Your task to perform on an android device: allow notifications from all sites in the chrome app Image 0: 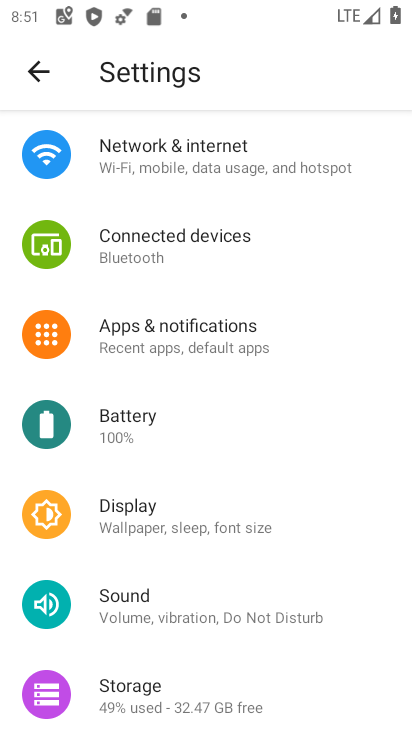
Step 0: press home button
Your task to perform on an android device: allow notifications from all sites in the chrome app Image 1: 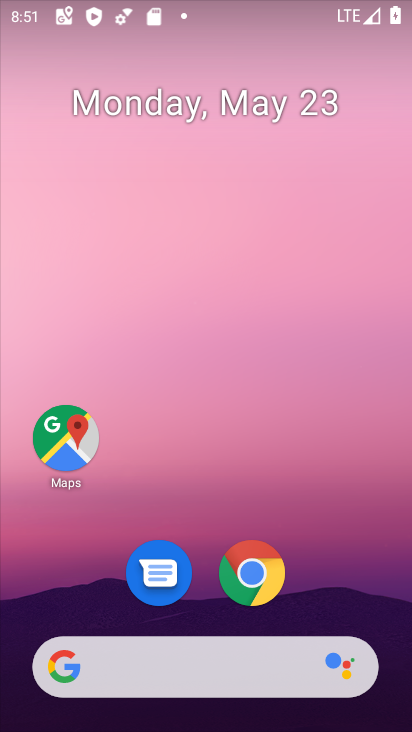
Step 1: click (252, 566)
Your task to perform on an android device: allow notifications from all sites in the chrome app Image 2: 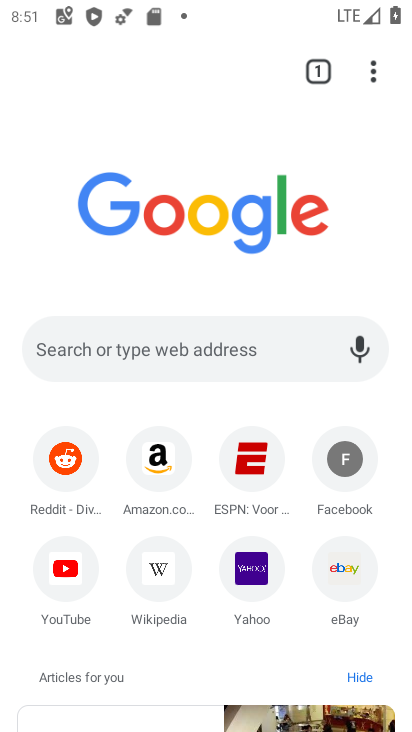
Step 2: click (369, 69)
Your task to perform on an android device: allow notifications from all sites in the chrome app Image 3: 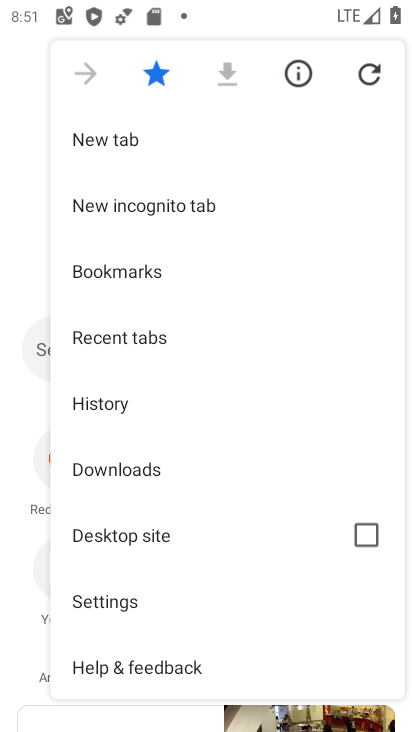
Step 3: click (139, 598)
Your task to perform on an android device: allow notifications from all sites in the chrome app Image 4: 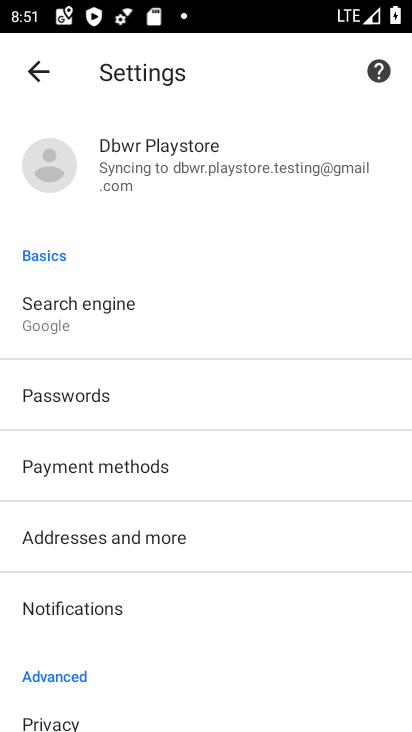
Step 4: click (139, 598)
Your task to perform on an android device: allow notifications from all sites in the chrome app Image 5: 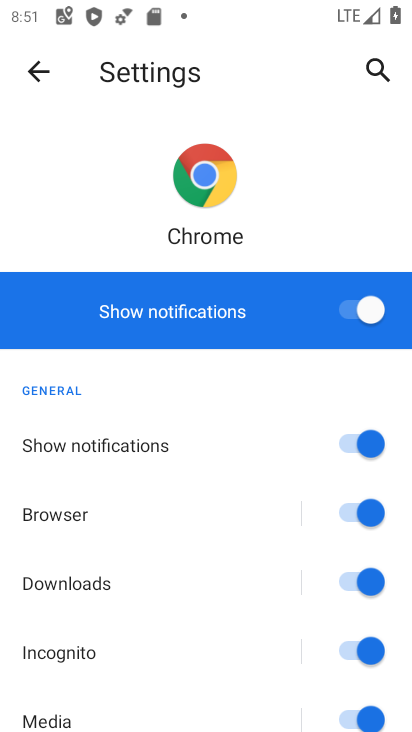
Step 5: task complete